Your task to perform on an android device: Open Youtube and go to the subscriptions tab Image 0: 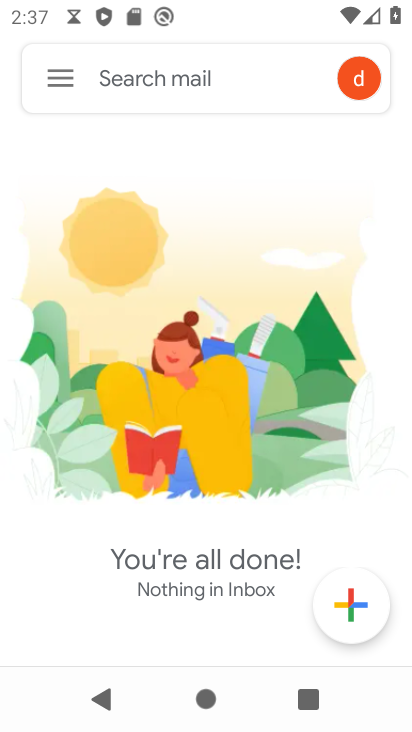
Step 0: press home button
Your task to perform on an android device: Open Youtube and go to the subscriptions tab Image 1: 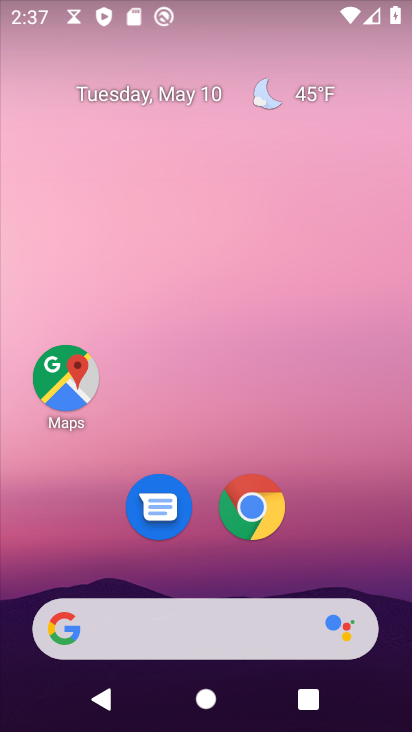
Step 1: drag from (328, 530) to (99, 219)
Your task to perform on an android device: Open Youtube and go to the subscriptions tab Image 2: 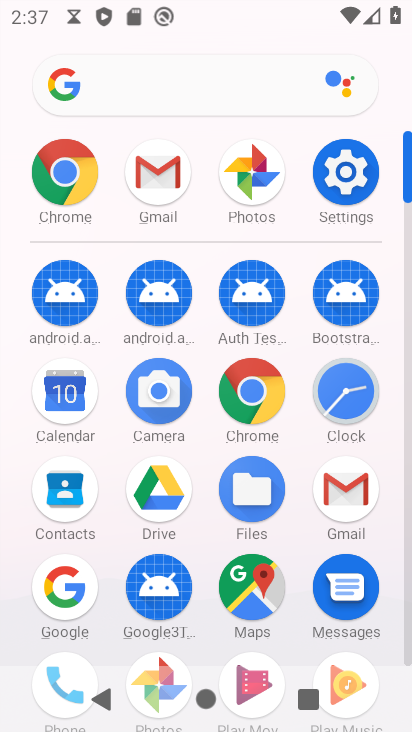
Step 2: drag from (203, 633) to (197, 183)
Your task to perform on an android device: Open Youtube and go to the subscriptions tab Image 3: 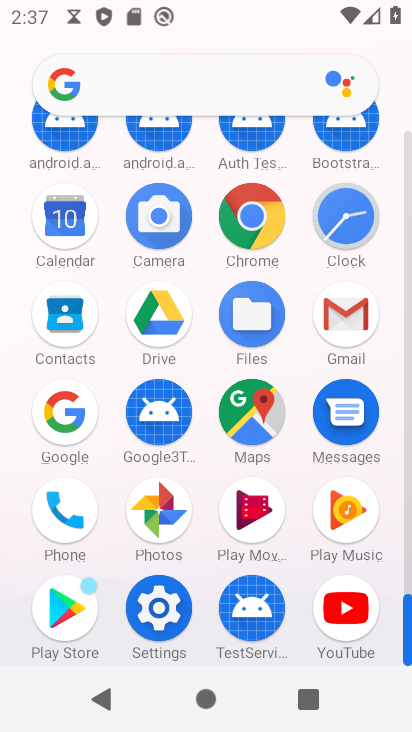
Step 3: click (351, 612)
Your task to perform on an android device: Open Youtube and go to the subscriptions tab Image 4: 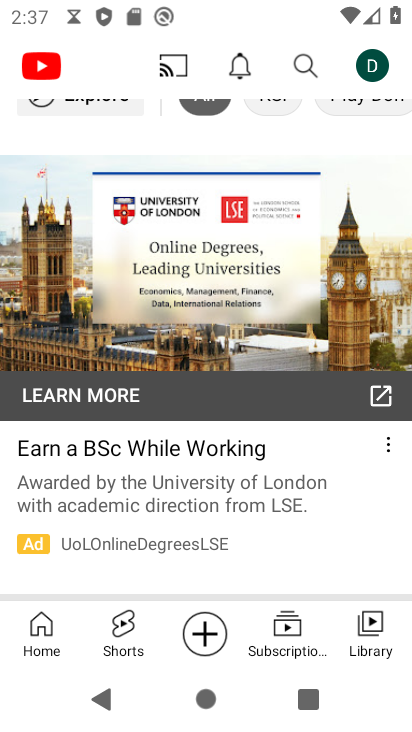
Step 4: click (290, 640)
Your task to perform on an android device: Open Youtube and go to the subscriptions tab Image 5: 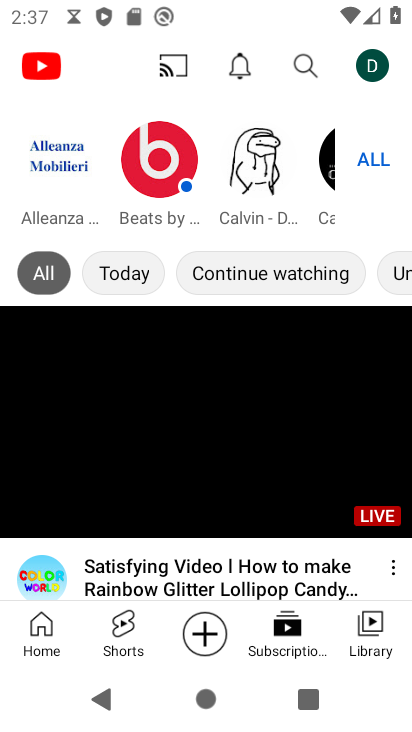
Step 5: task complete